Your task to perform on an android device: Go to Reddit.com Image 0: 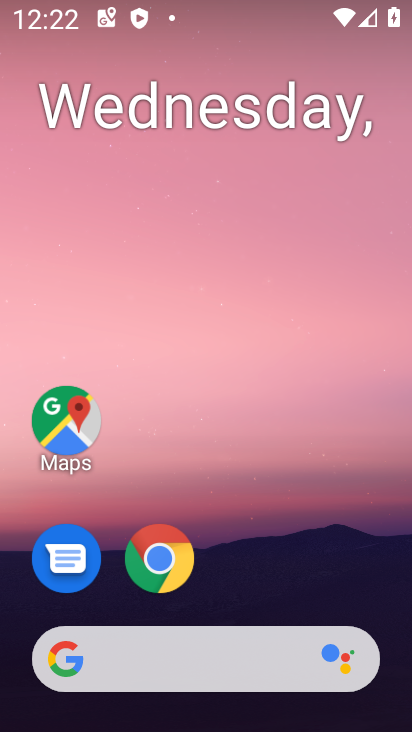
Step 0: click (160, 559)
Your task to perform on an android device: Go to Reddit.com Image 1: 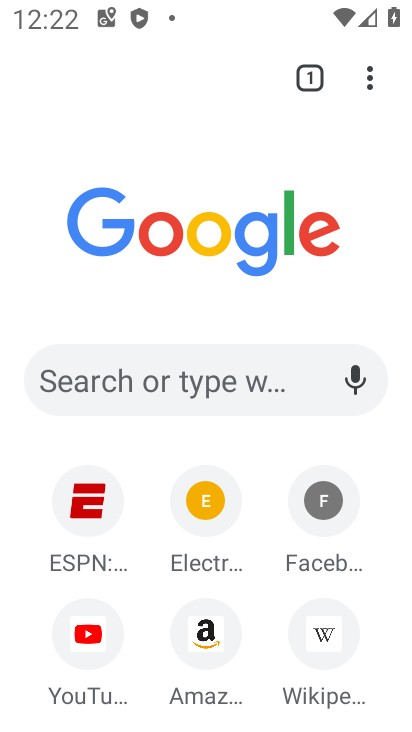
Step 1: click (160, 383)
Your task to perform on an android device: Go to Reddit.com Image 2: 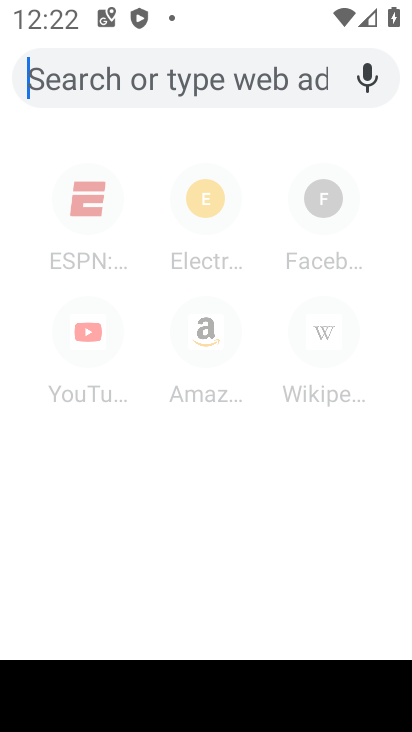
Step 2: type "reddit.com"
Your task to perform on an android device: Go to Reddit.com Image 3: 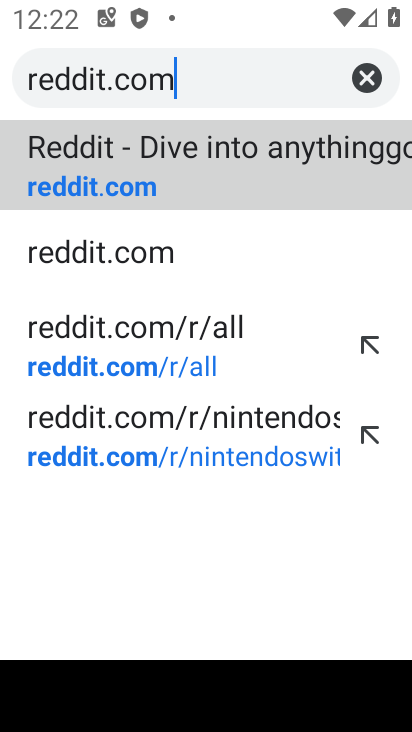
Step 3: click (224, 179)
Your task to perform on an android device: Go to Reddit.com Image 4: 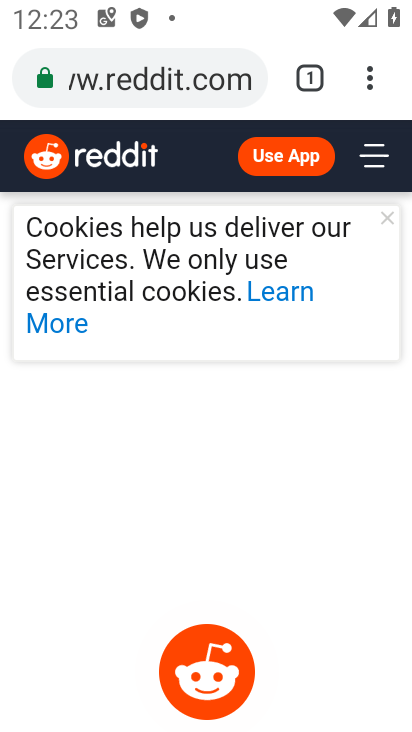
Step 4: task complete